Your task to perform on an android device: create a new album in the google photos Image 0: 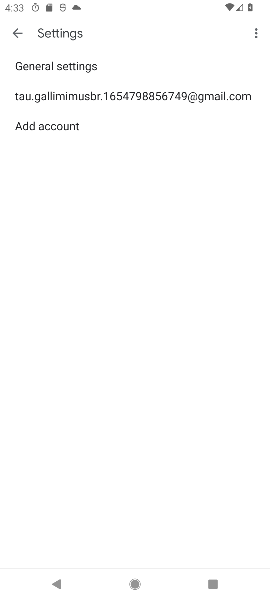
Step 0: press home button
Your task to perform on an android device: create a new album in the google photos Image 1: 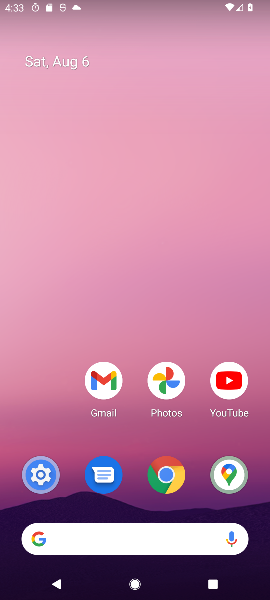
Step 1: click (162, 380)
Your task to perform on an android device: create a new album in the google photos Image 2: 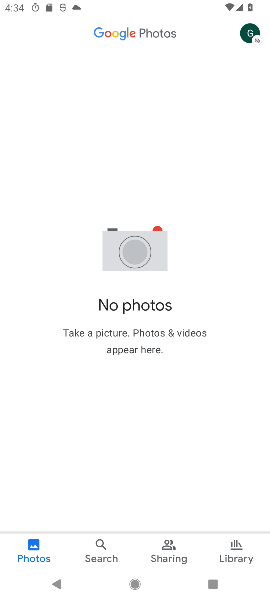
Step 2: task complete